Your task to perform on an android device: snooze an email in the gmail app Image 0: 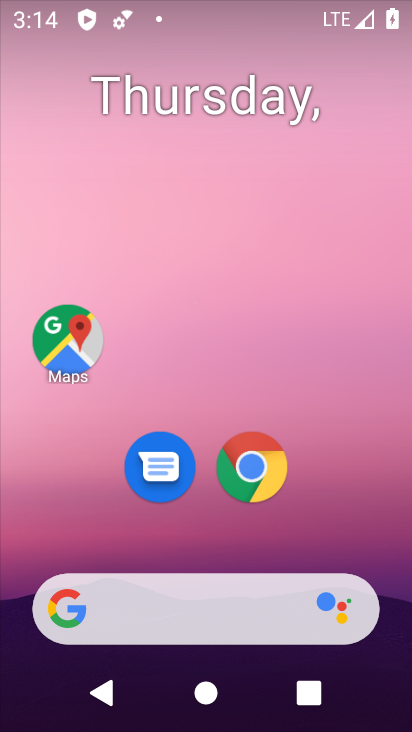
Step 0: drag from (188, 614) to (249, 248)
Your task to perform on an android device: snooze an email in the gmail app Image 1: 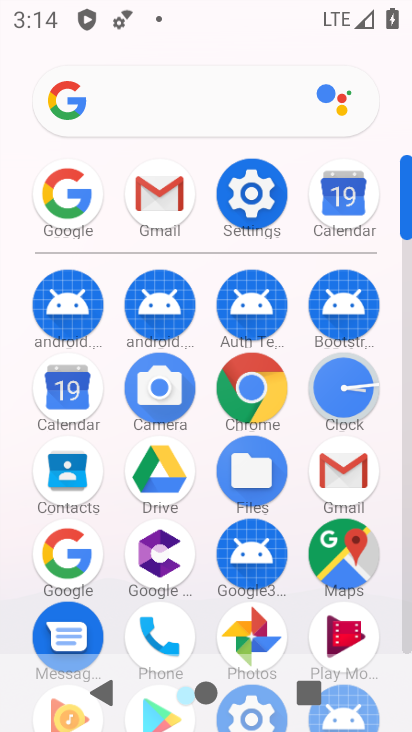
Step 1: click (170, 215)
Your task to perform on an android device: snooze an email in the gmail app Image 2: 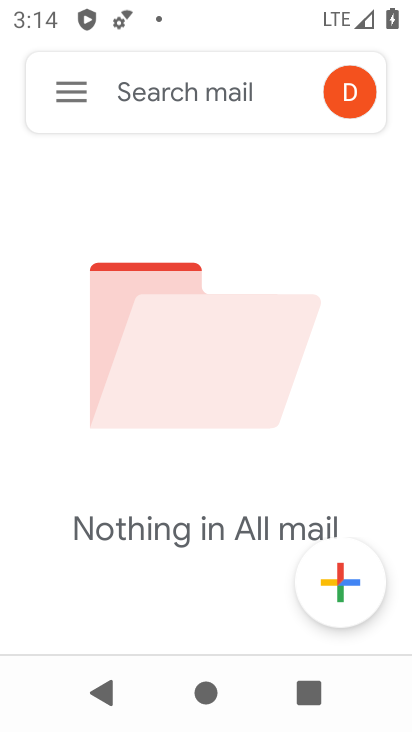
Step 2: click (78, 90)
Your task to perform on an android device: snooze an email in the gmail app Image 3: 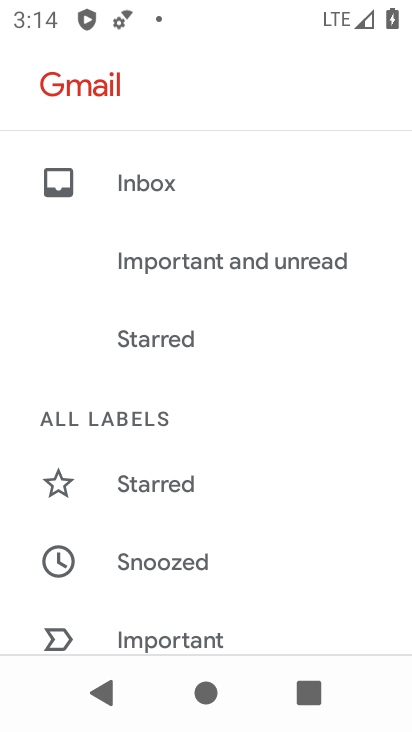
Step 3: drag from (176, 588) to (171, 54)
Your task to perform on an android device: snooze an email in the gmail app Image 4: 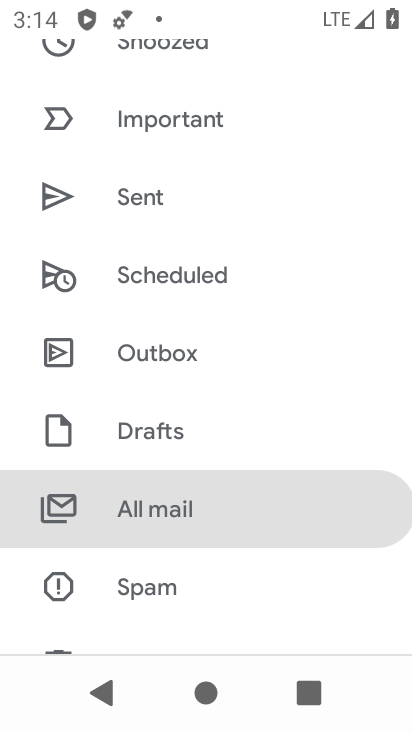
Step 4: click (227, 484)
Your task to perform on an android device: snooze an email in the gmail app Image 5: 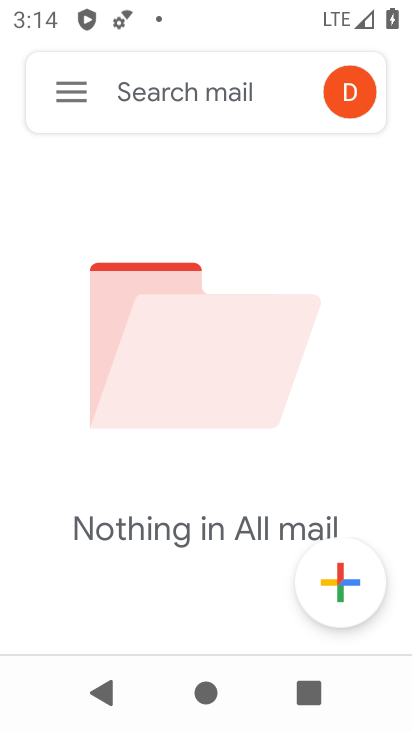
Step 5: task complete